Your task to perform on an android device: Look up the book "The Girl on the Train". Image 0: 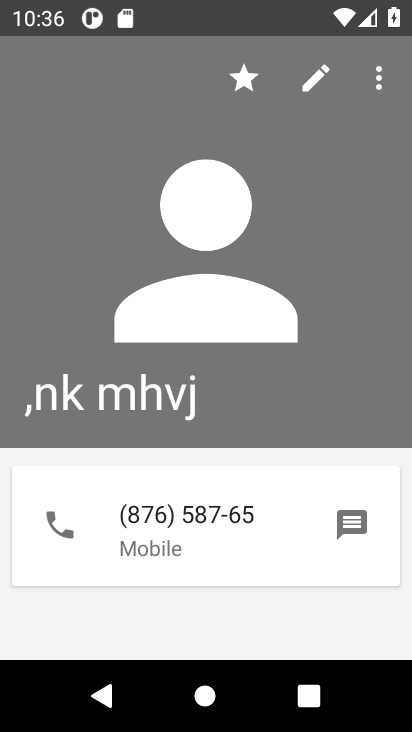
Step 0: task complete